Your task to perform on an android device: What is the news today? Image 0: 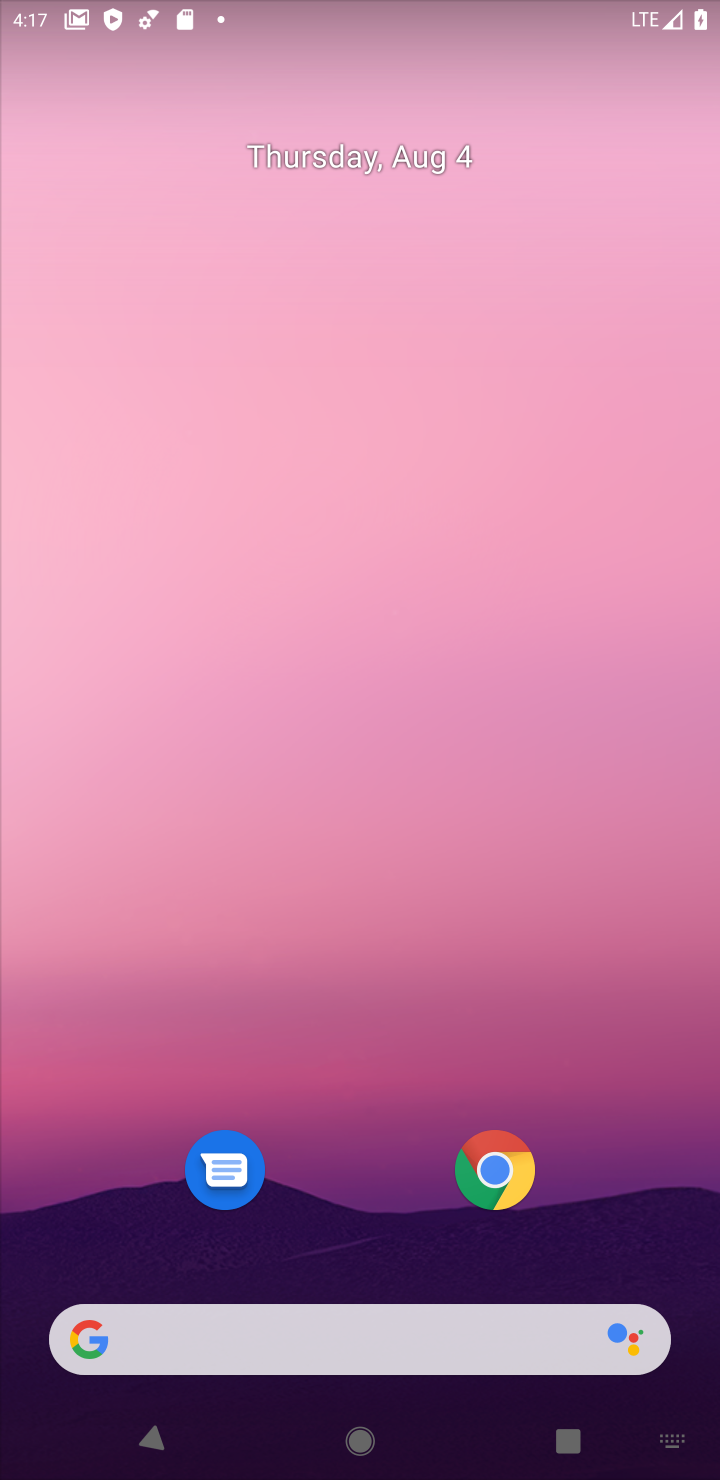
Step 0: click (503, 1173)
Your task to perform on an android device: What is the news today? Image 1: 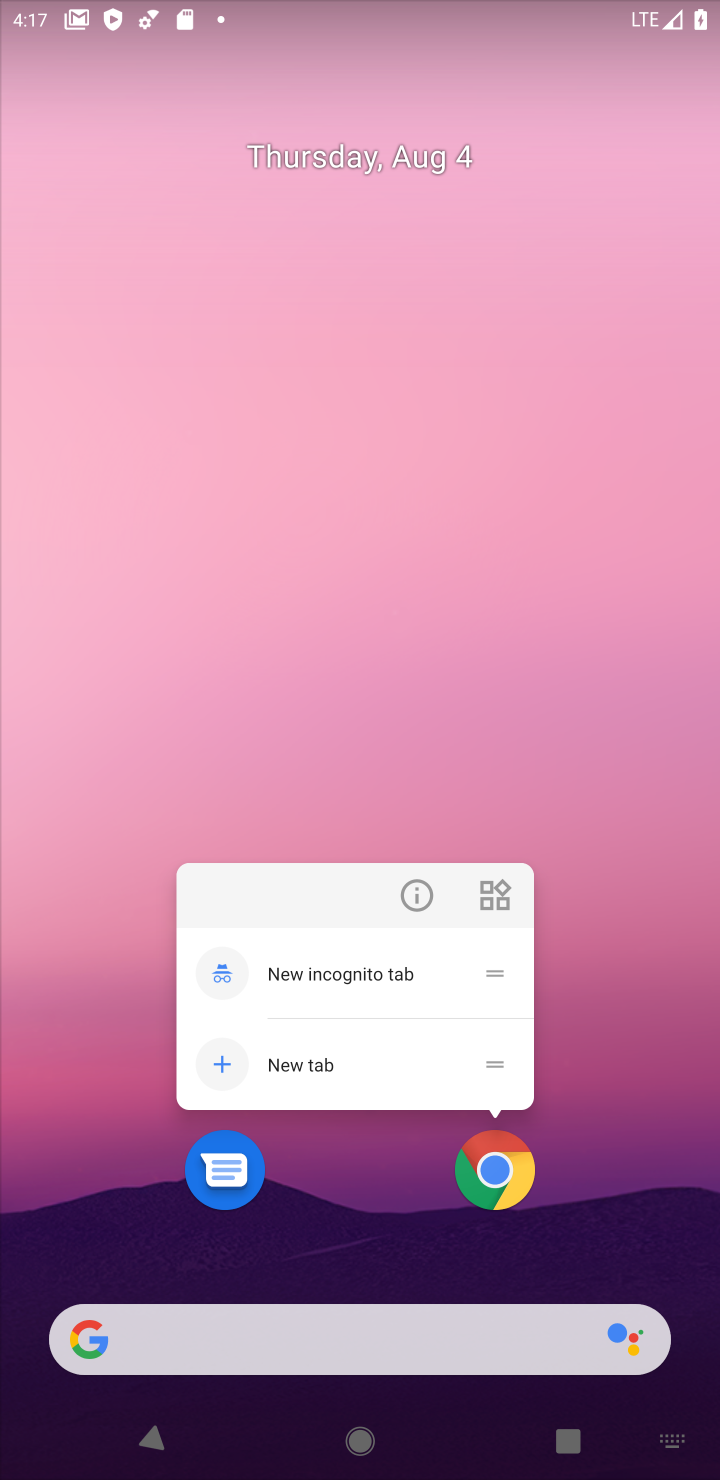
Step 1: click (503, 1173)
Your task to perform on an android device: What is the news today? Image 2: 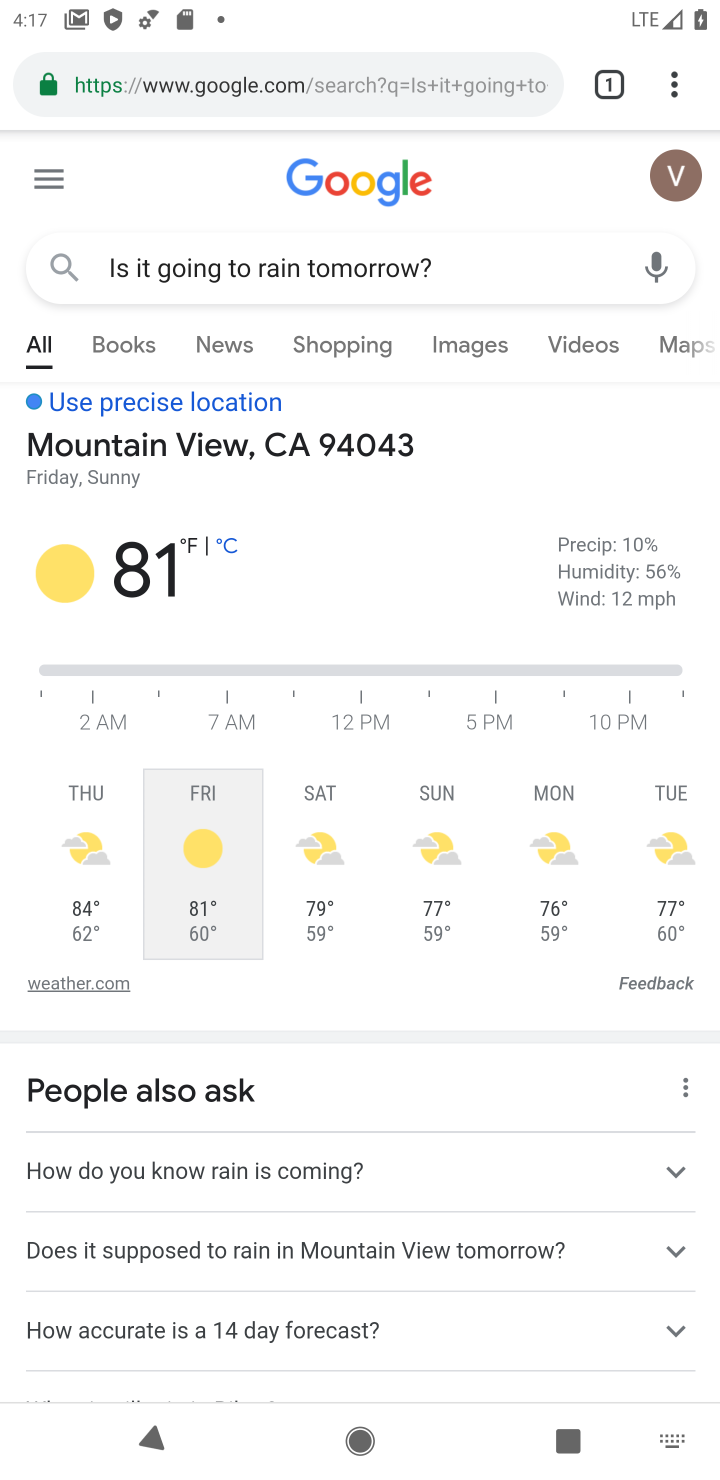
Step 2: click (321, 100)
Your task to perform on an android device: What is the news today? Image 3: 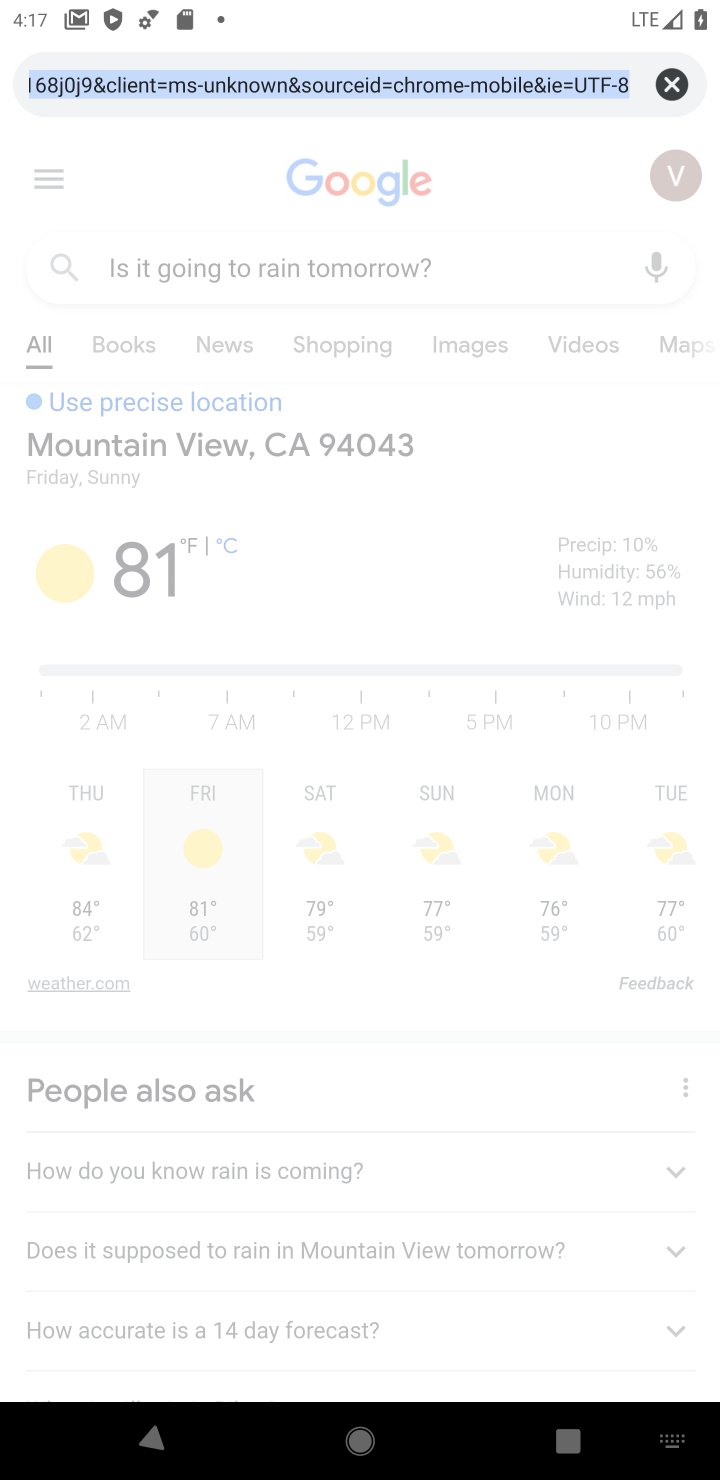
Step 3: type "What is the news today?"
Your task to perform on an android device: What is the news today? Image 4: 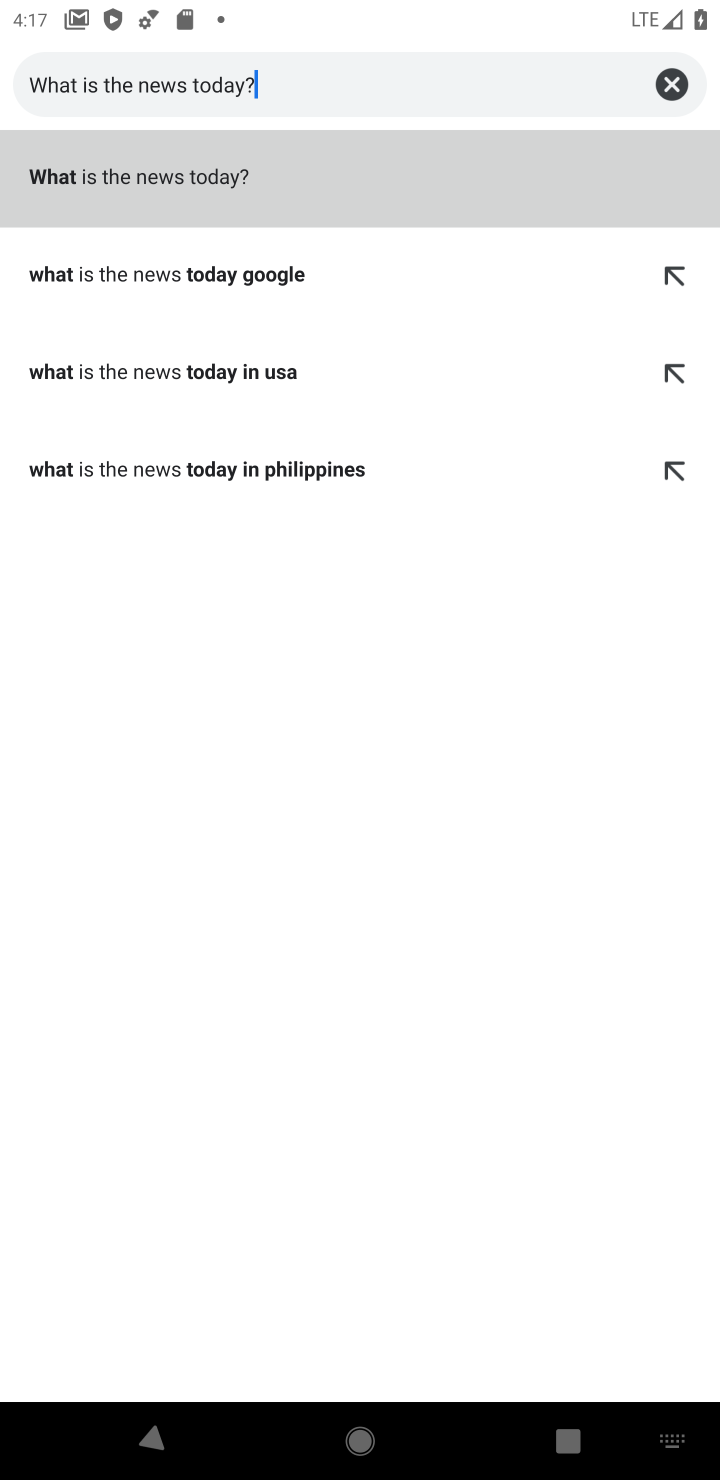
Step 4: click (188, 155)
Your task to perform on an android device: What is the news today? Image 5: 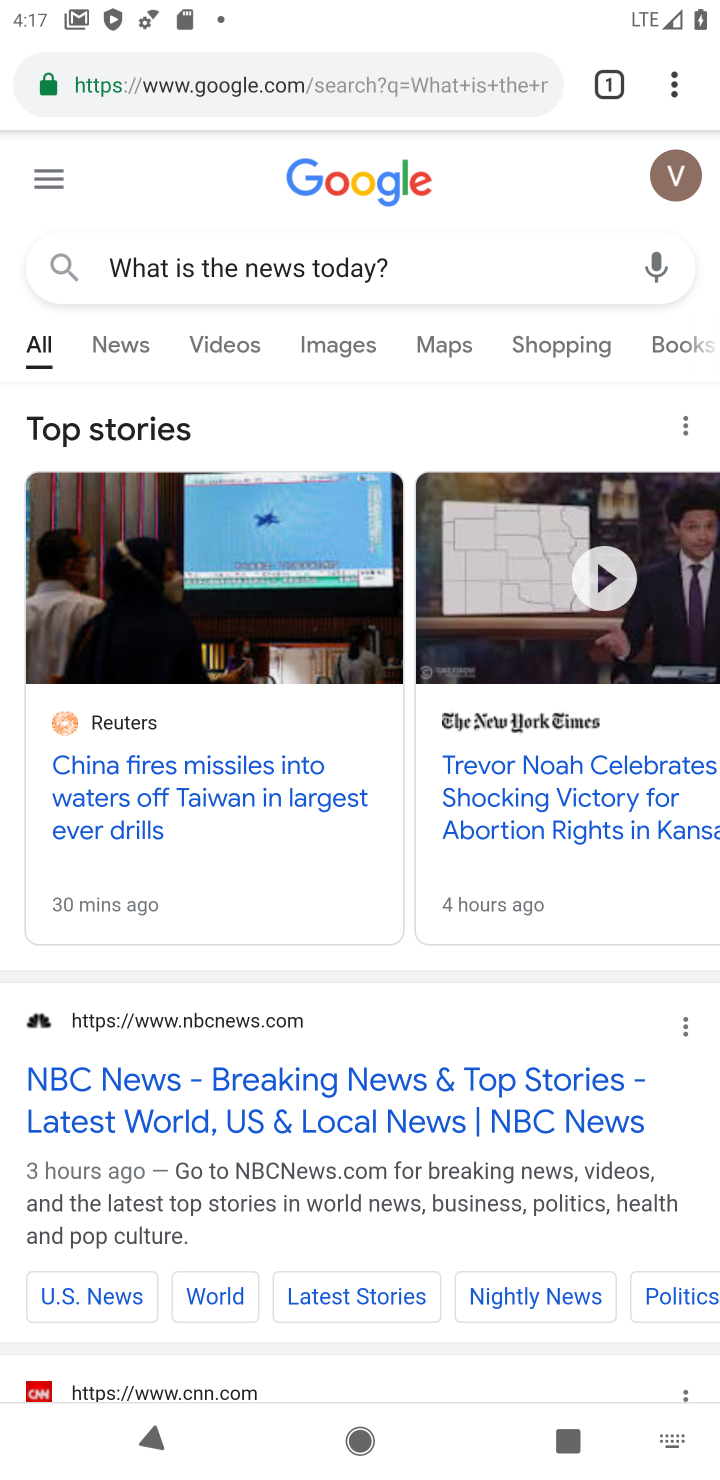
Step 5: task complete